Your task to perform on an android device: stop showing notifications on the lock screen Image 0: 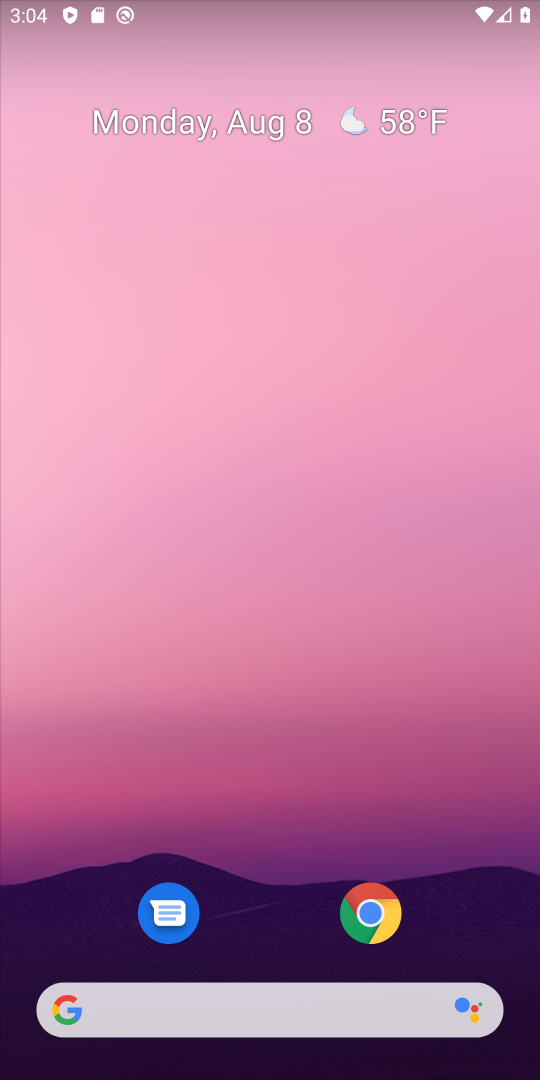
Step 0: press home button
Your task to perform on an android device: stop showing notifications on the lock screen Image 1: 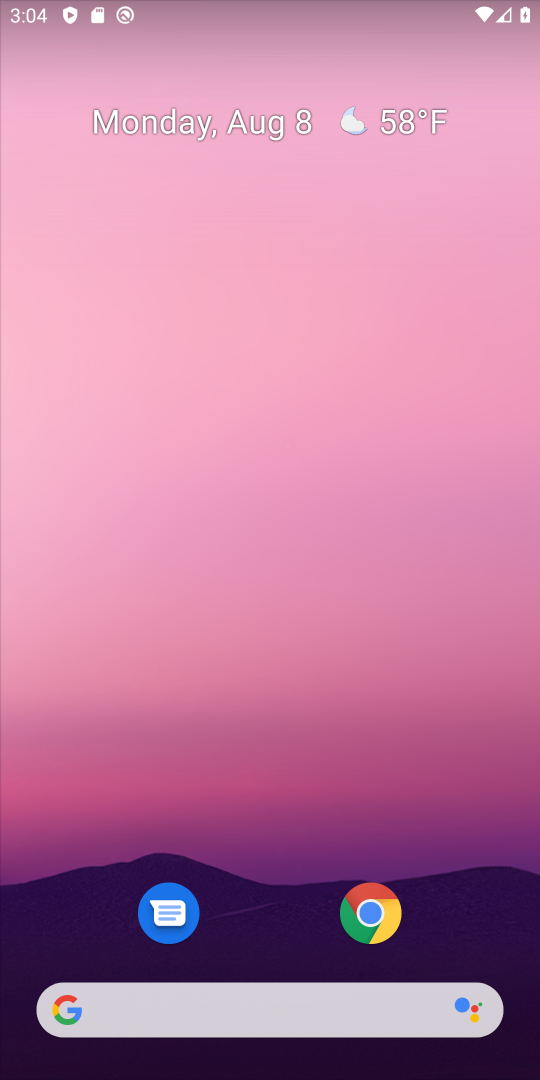
Step 1: drag from (444, 906) to (478, 188)
Your task to perform on an android device: stop showing notifications on the lock screen Image 2: 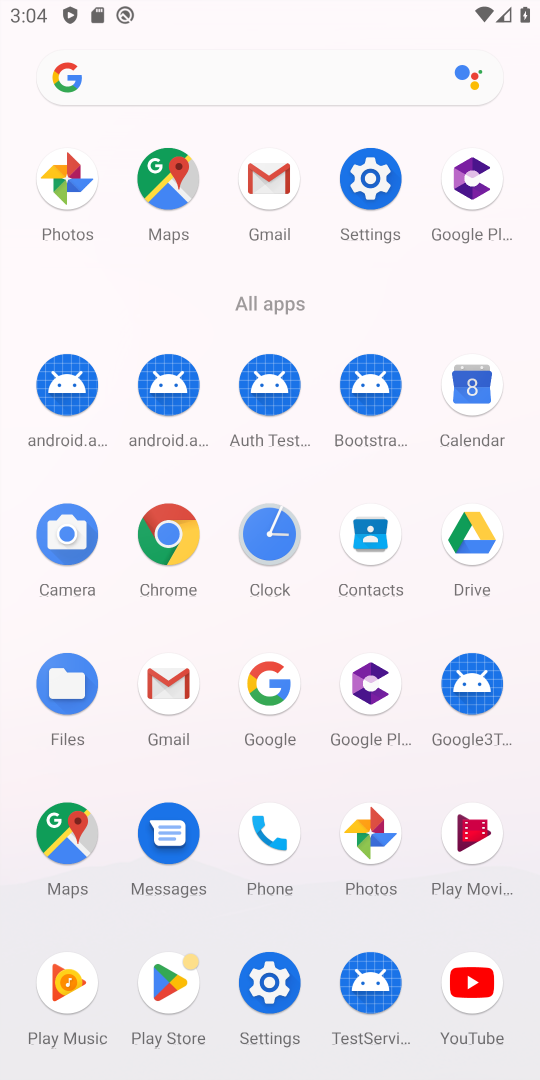
Step 2: click (364, 186)
Your task to perform on an android device: stop showing notifications on the lock screen Image 3: 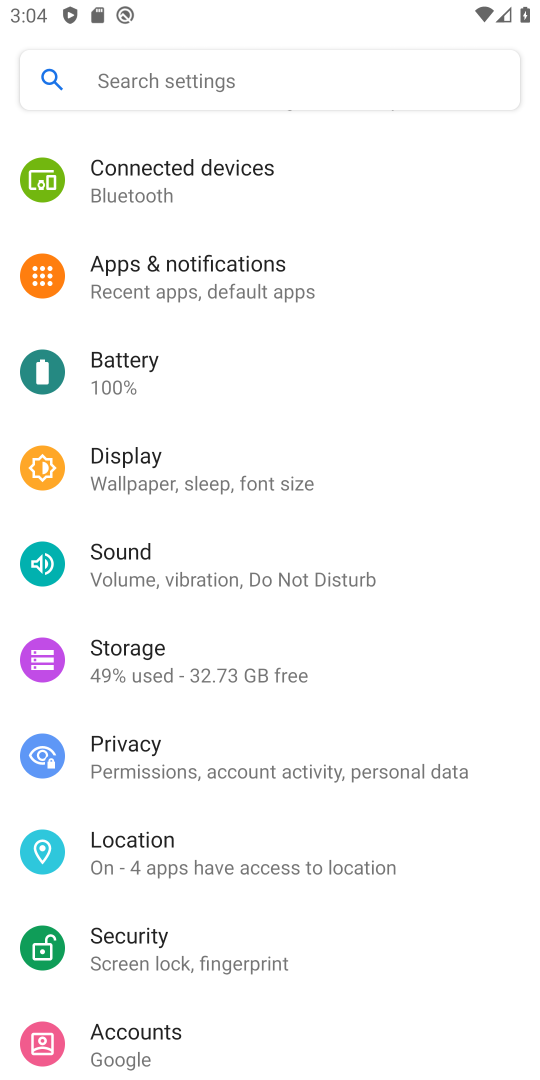
Step 3: drag from (489, 797) to (493, 605)
Your task to perform on an android device: stop showing notifications on the lock screen Image 4: 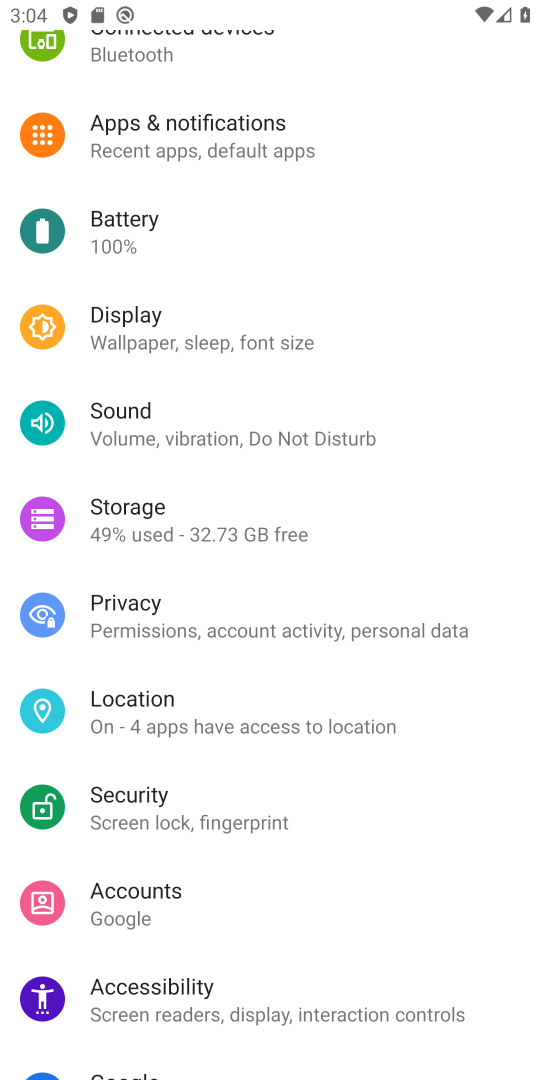
Step 4: drag from (453, 800) to (470, 635)
Your task to perform on an android device: stop showing notifications on the lock screen Image 5: 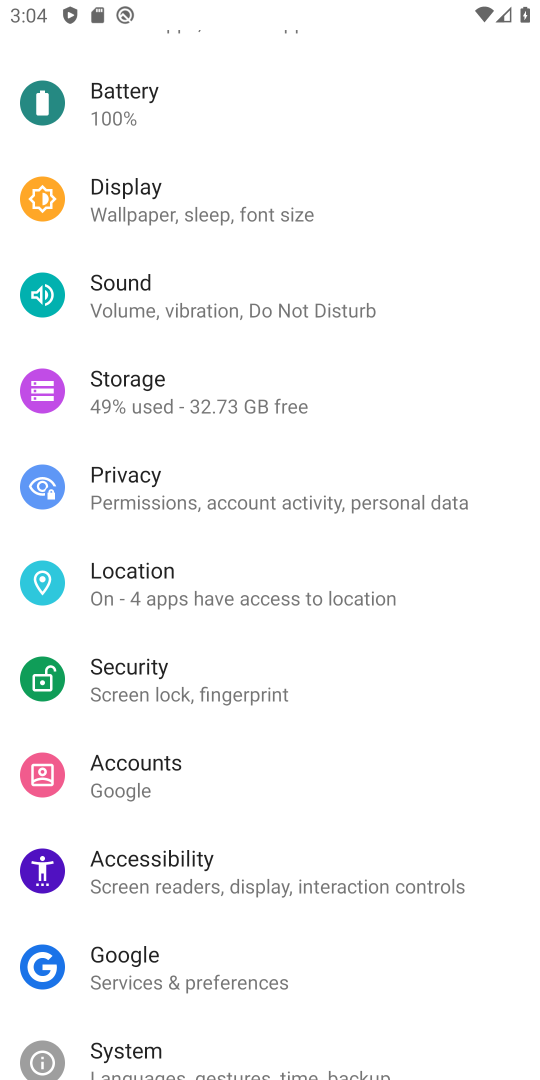
Step 5: drag from (460, 725) to (475, 511)
Your task to perform on an android device: stop showing notifications on the lock screen Image 6: 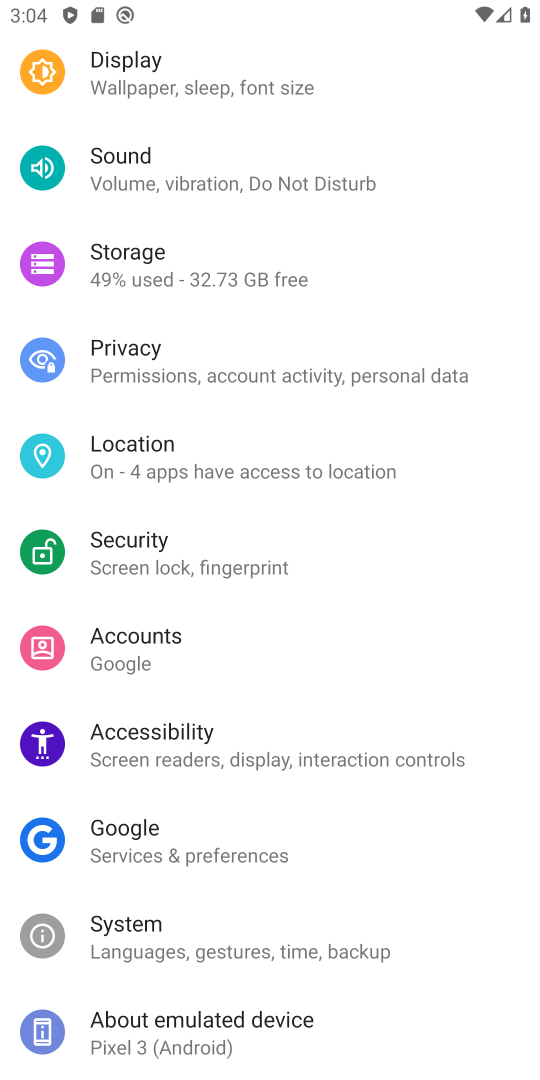
Step 6: drag from (487, 830) to (495, 556)
Your task to perform on an android device: stop showing notifications on the lock screen Image 7: 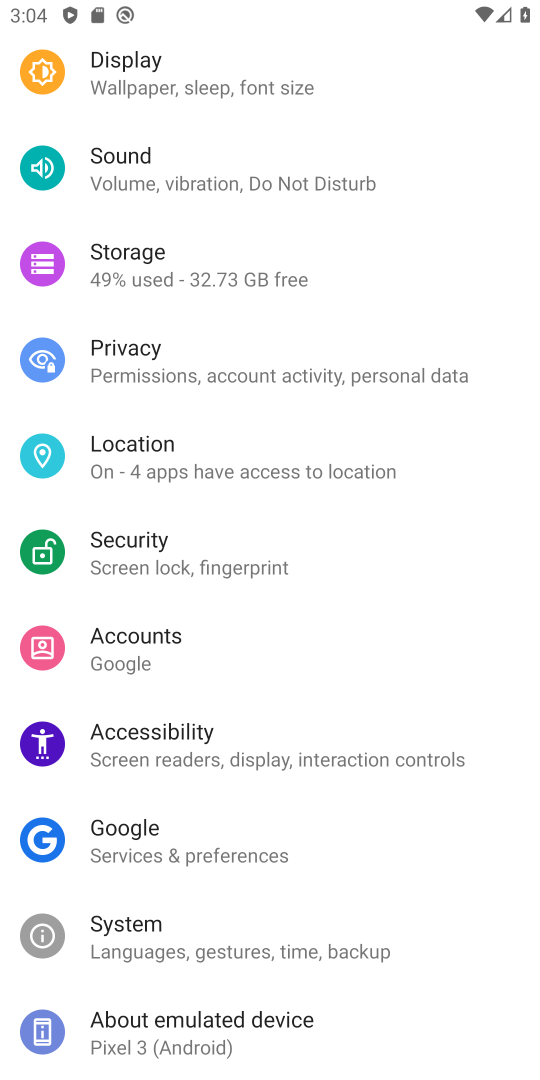
Step 7: drag from (506, 316) to (494, 445)
Your task to perform on an android device: stop showing notifications on the lock screen Image 8: 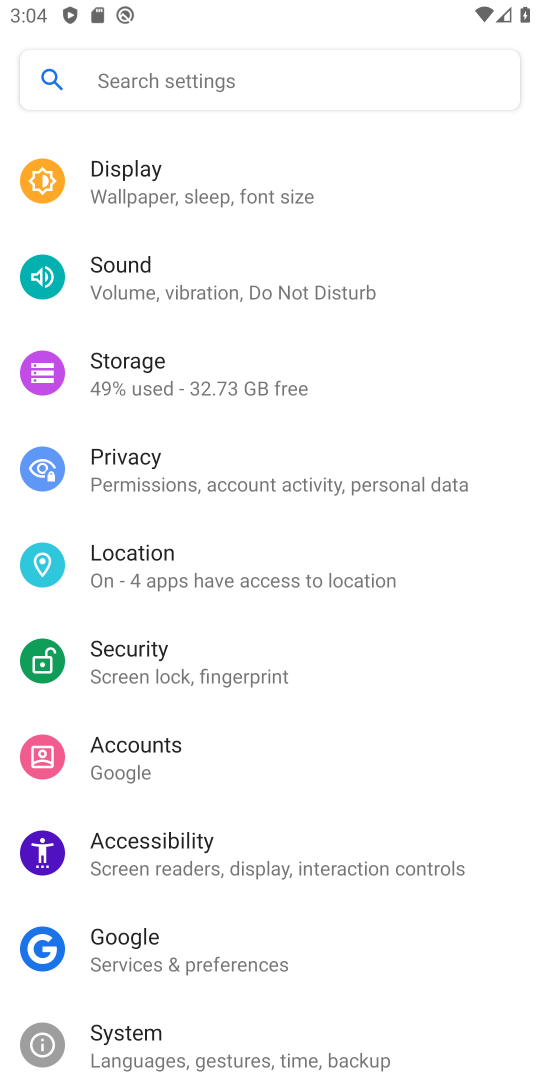
Step 8: drag from (483, 309) to (478, 437)
Your task to perform on an android device: stop showing notifications on the lock screen Image 9: 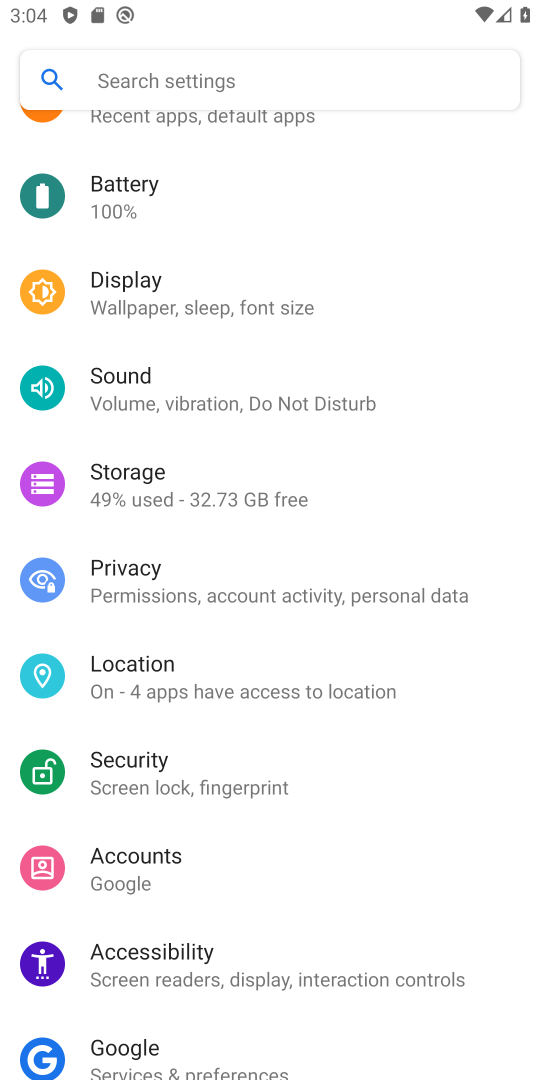
Step 9: drag from (474, 279) to (470, 437)
Your task to perform on an android device: stop showing notifications on the lock screen Image 10: 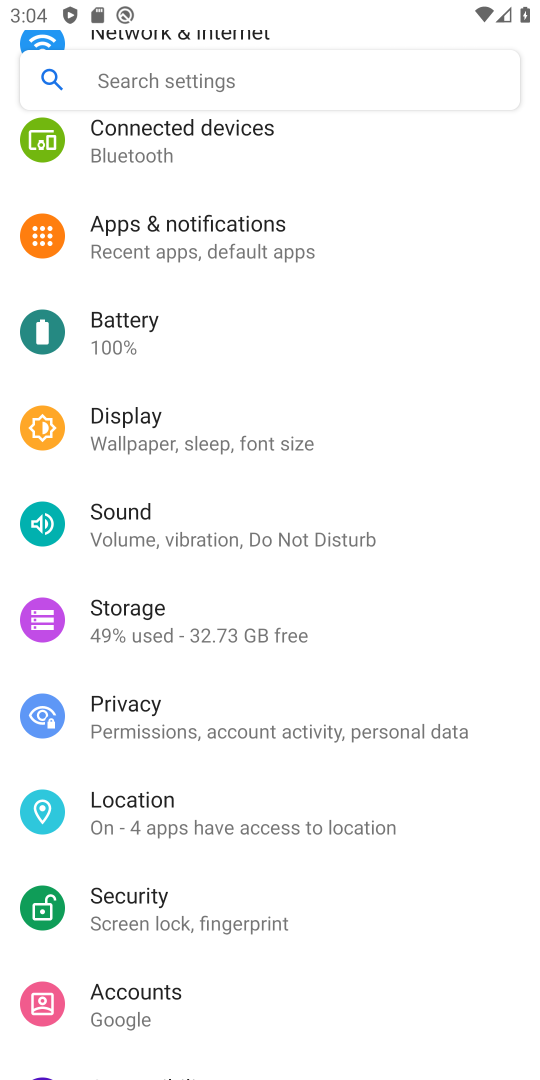
Step 10: drag from (465, 277) to (473, 457)
Your task to perform on an android device: stop showing notifications on the lock screen Image 11: 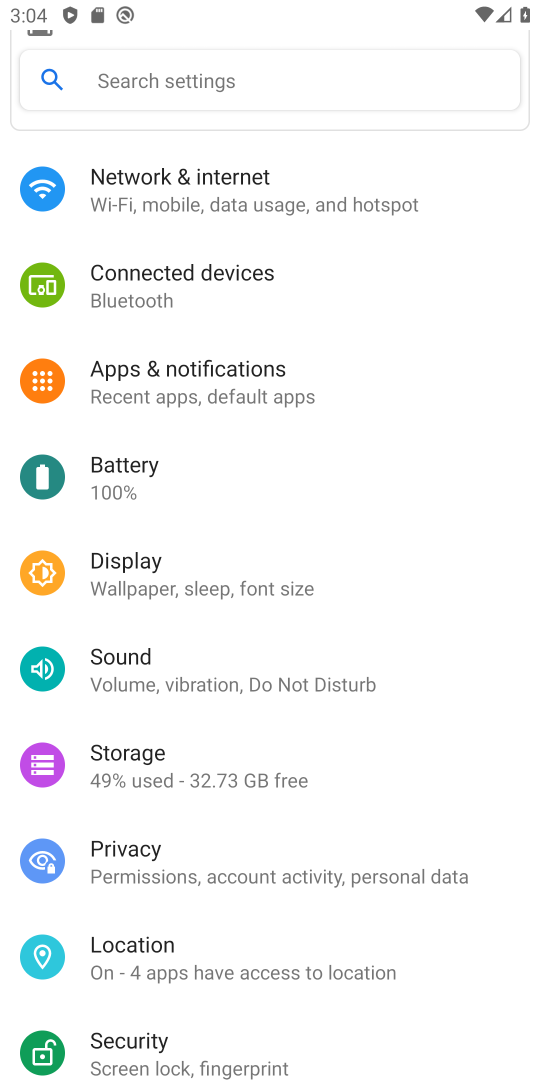
Step 11: drag from (473, 271) to (469, 435)
Your task to perform on an android device: stop showing notifications on the lock screen Image 12: 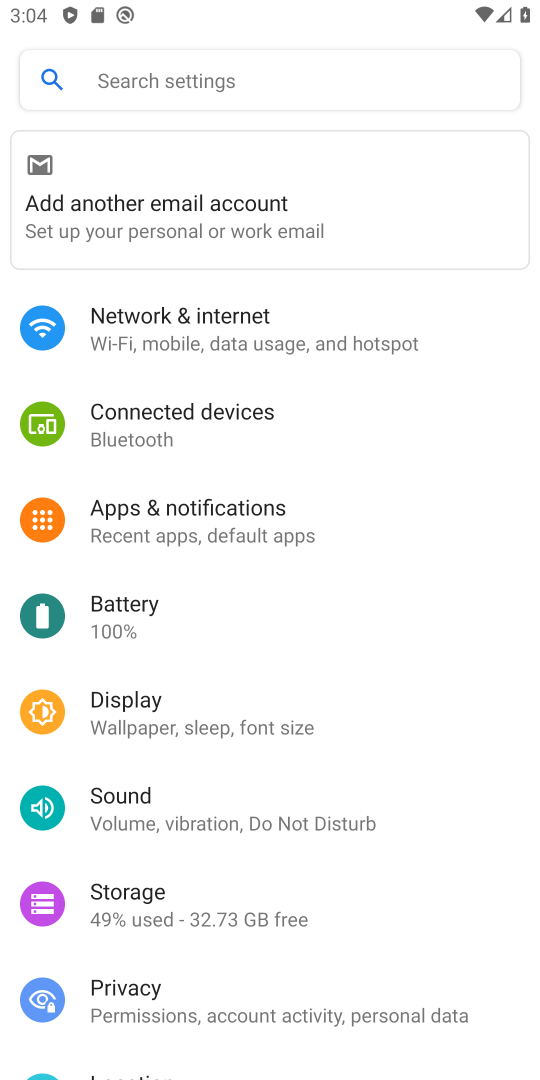
Step 12: drag from (465, 180) to (475, 469)
Your task to perform on an android device: stop showing notifications on the lock screen Image 13: 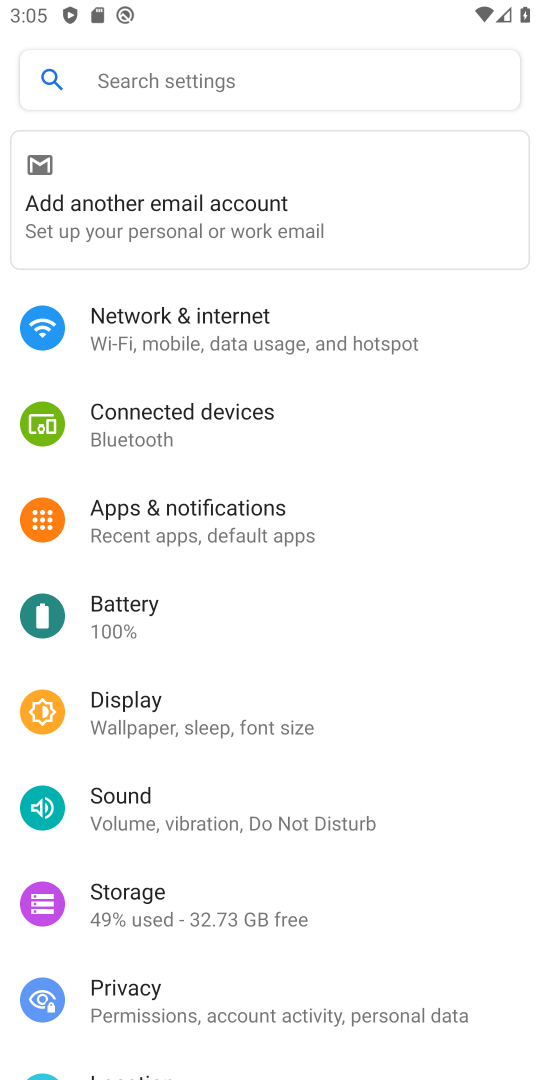
Step 13: click (336, 510)
Your task to perform on an android device: stop showing notifications on the lock screen Image 14: 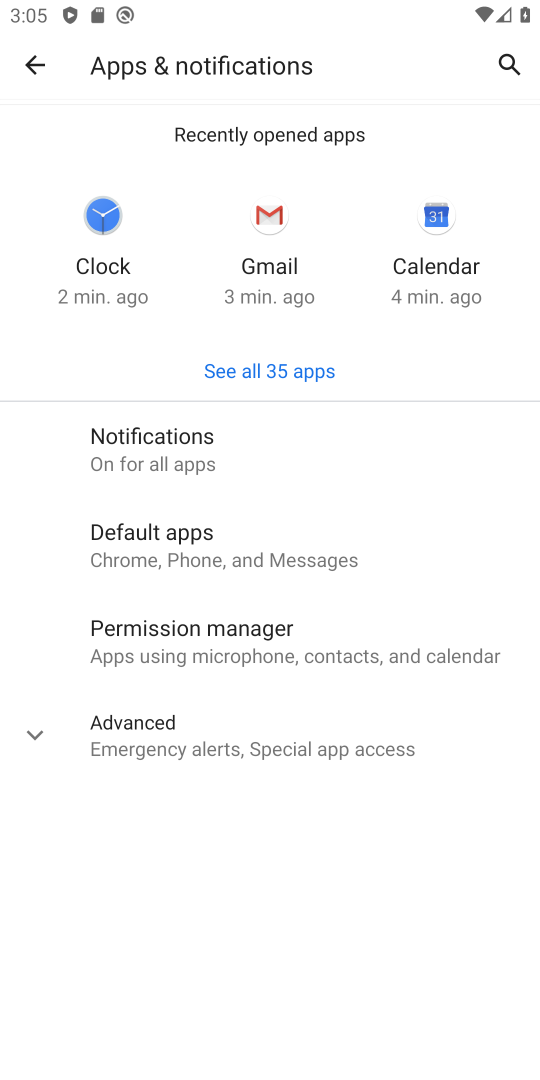
Step 14: click (241, 448)
Your task to perform on an android device: stop showing notifications on the lock screen Image 15: 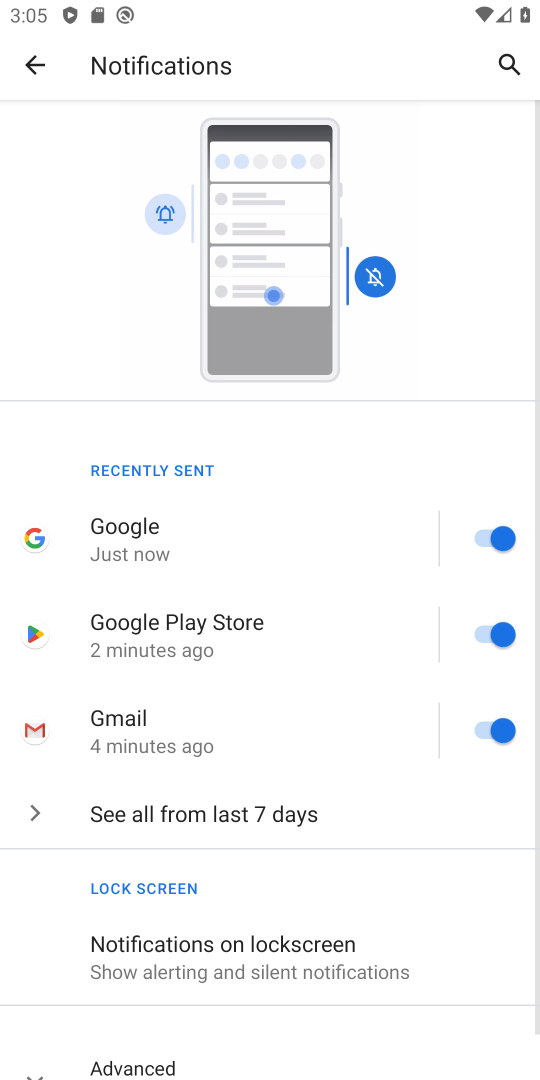
Step 15: drag from (311, 601) to (327, 407)
Your task to perform on an android device: stop showing notifications on the lock screen Image 16: 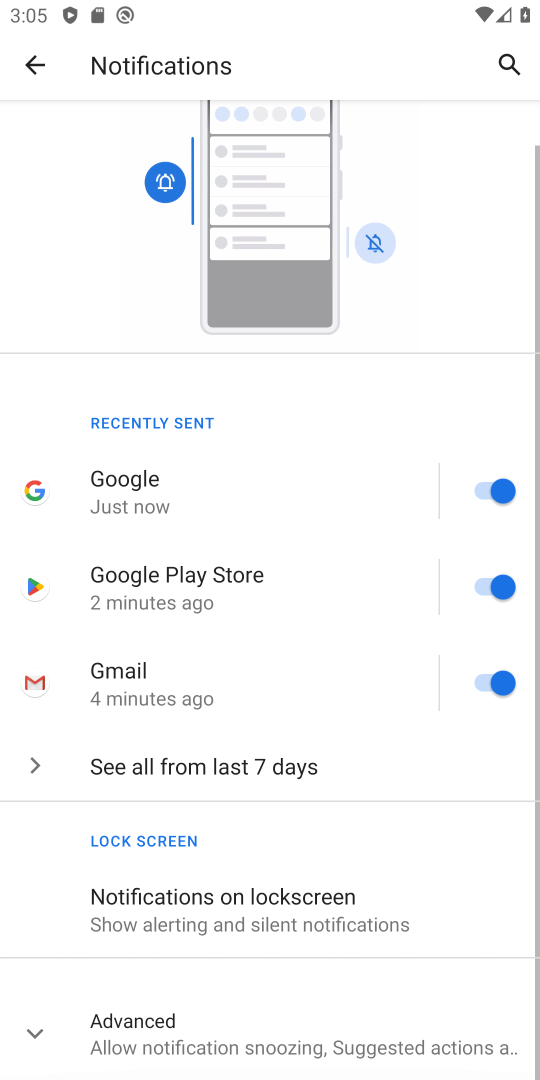
Step 16: drag from (371, 491) to (371, 420)
Your task to perform on an android device: stop showing notifications on the lock screen Image 17: 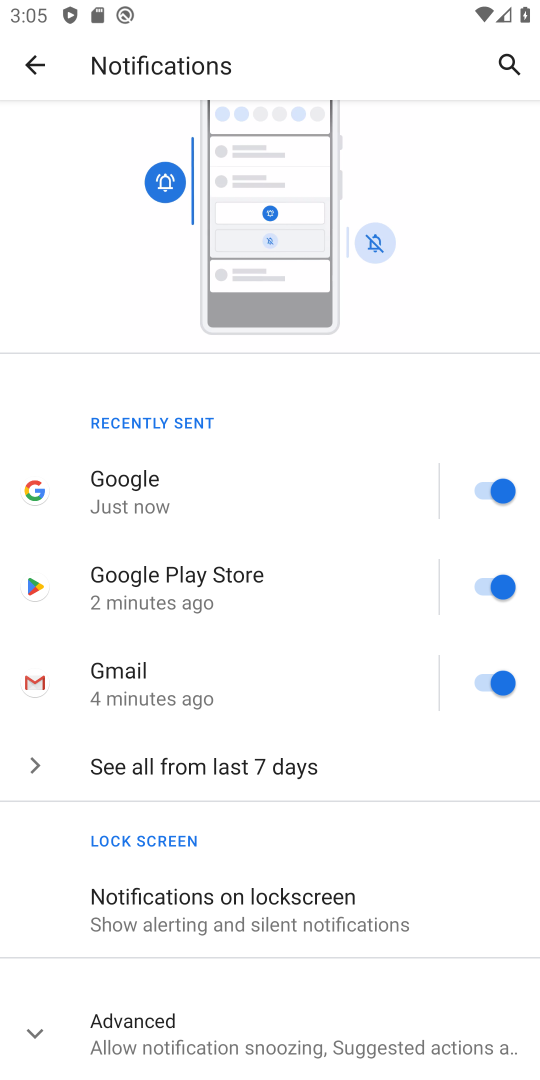
Step 17: click (312, 919)
Your task to perform on an android device: stop showing notifications on the lock screen Image 18: 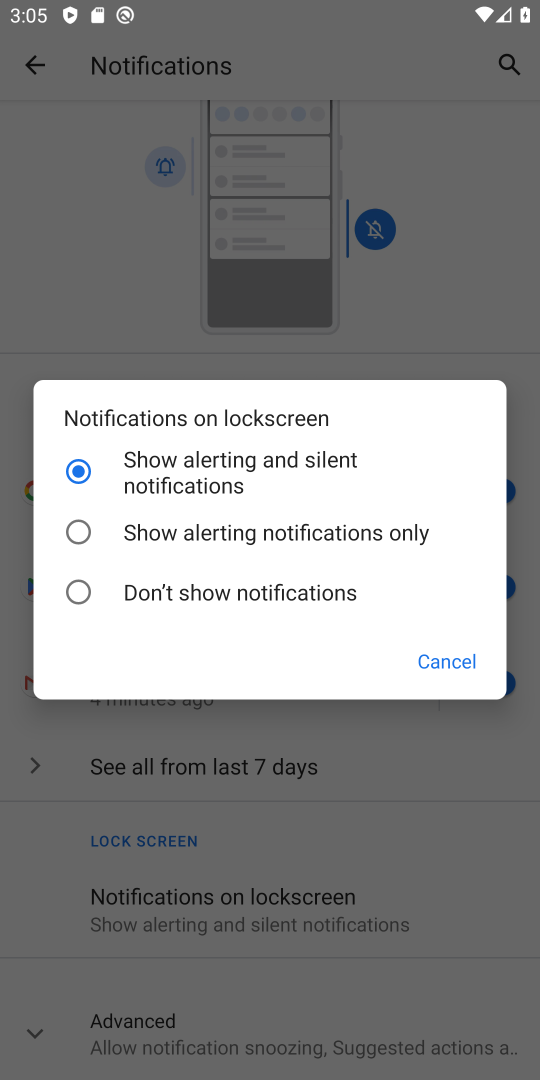
Step 18: click (181, 583)
Your task to perform on an android device: stop showing notifications on the lock screen Image 19: 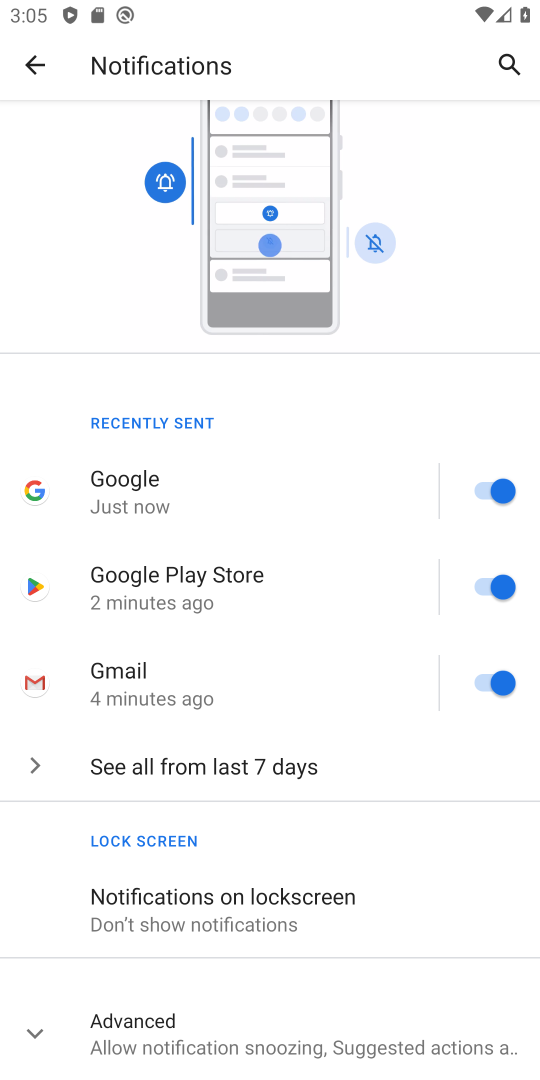
Step 19: task complete